Your task to perform on an android device: turn off notifications settings in the gmail app Image 0: 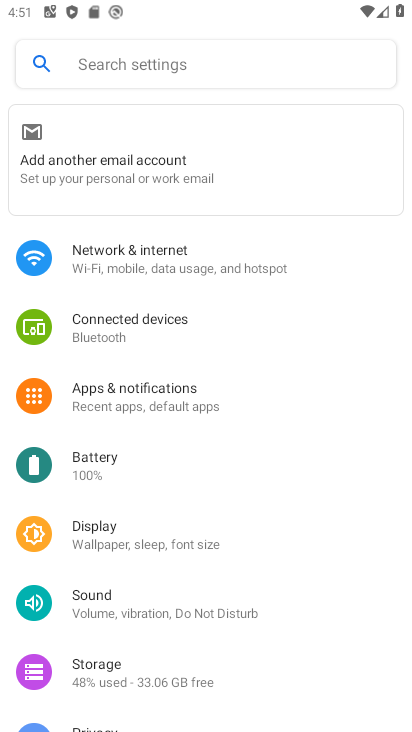
Step 0: press home button
Your task to perform on an android device: turn off notifications settings in the gmail app Image 1: 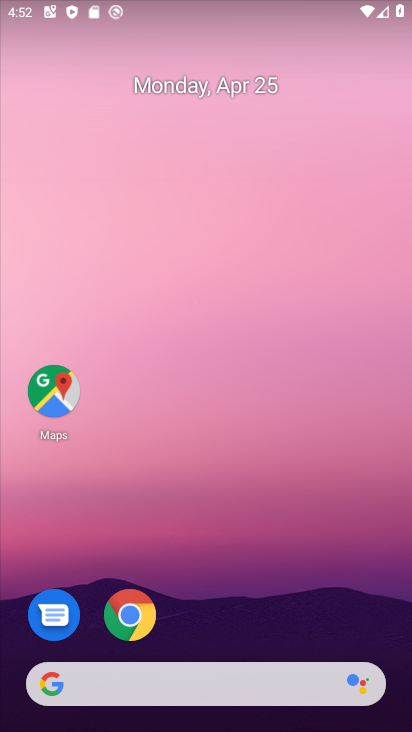
Step 1: drag from (378, 397) to (348, 57)
Your task to perform on an android device: turn off notifications settings in the gmail app Image 2: 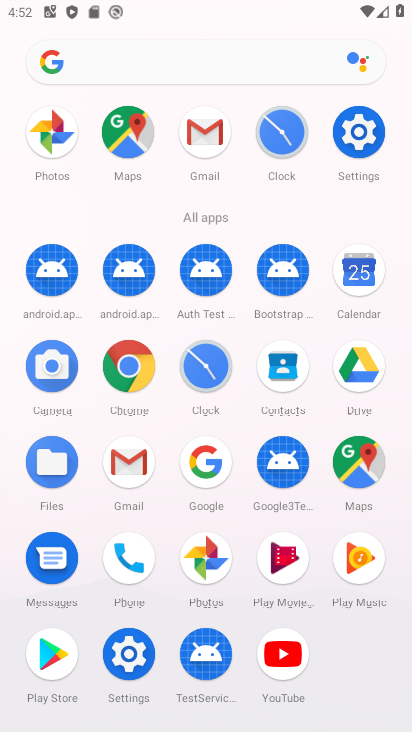
Step 2: click (207, 149)
Your task to perform on an android device: turn off notifications settings in the gmail app Image 3: 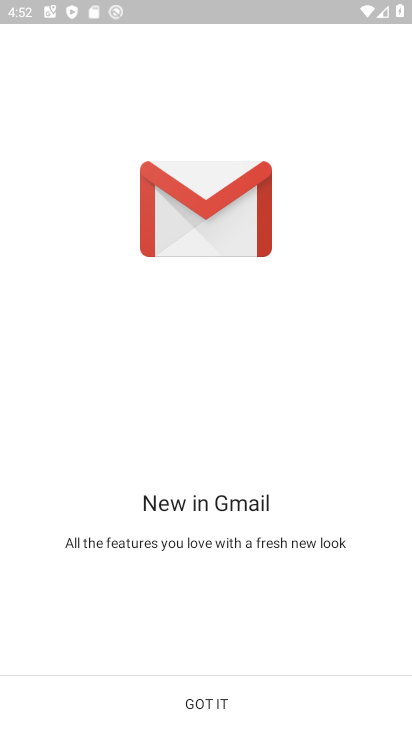
Step 3: click (213, 696)
Your task to perform on an android device: turn off notifications settings in the gmail app Image 4: 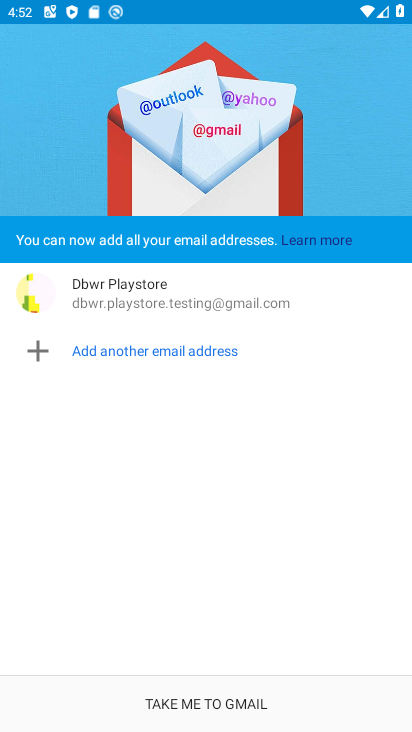
Step 4: click (234, 696)
Your task to perform on an android device: turn off notifications settings in the gmail app Image 5: 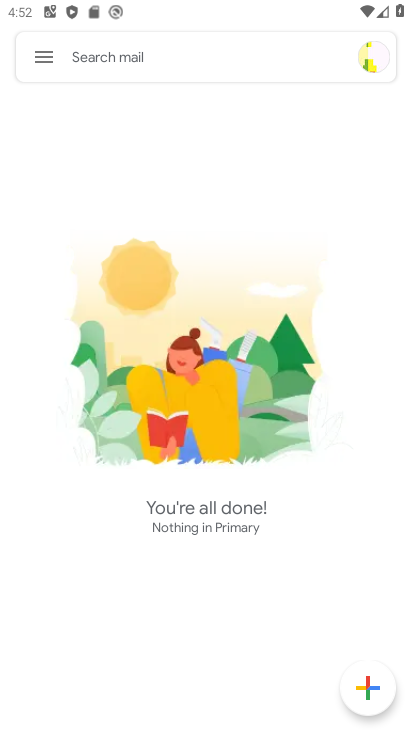
Step 5: click (44, 52)
Your task to perform on an android device: turn off notifications settings in the gmail app Image 6: 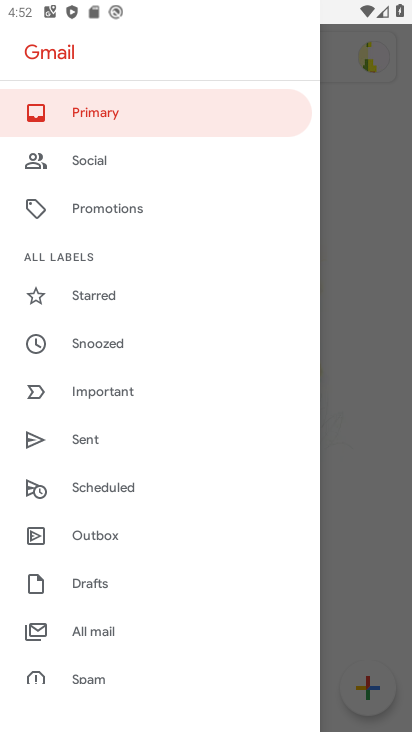
Step 6: drag from (164, 466) to (209, 108)
Your task to perform on an android device: turn off notifications settings in the gmail app Image 7: 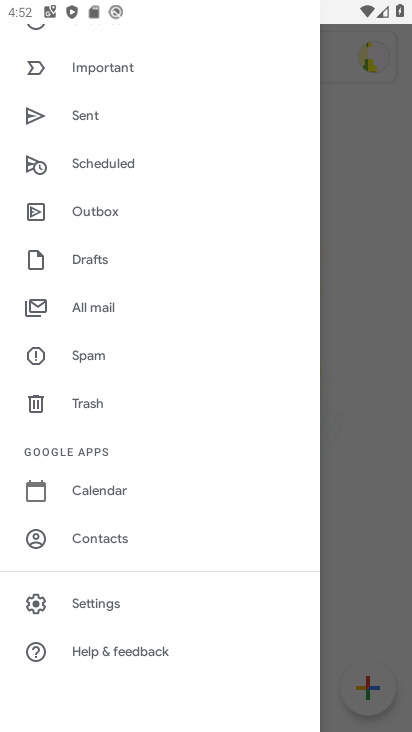
Step 7: click (136, 603)
Your task to perform on an android device: turn off notifications settings in the gmail app Image 8: 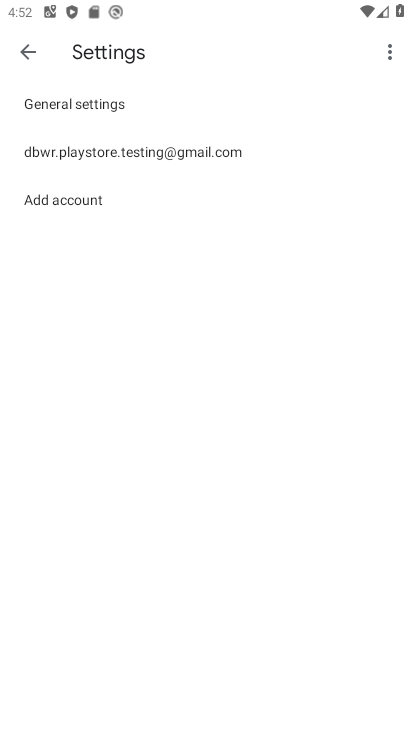
Step 8: click (111, 149)
Your task to perform on an android device: turn off notifications settings in the gmail app Image 9: 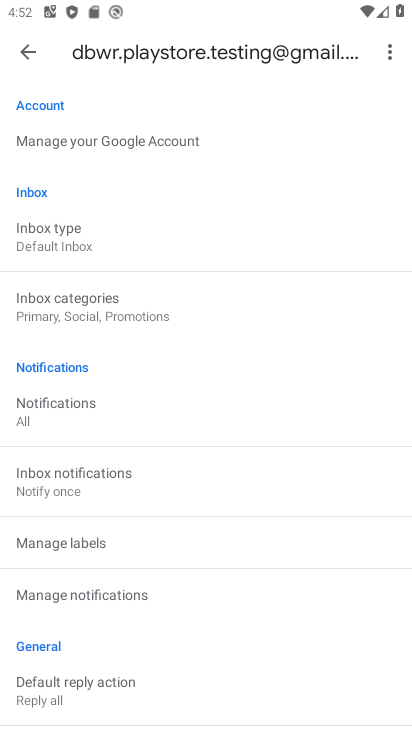
Step 9: click (74, 408)
Your task to perform on an android device: turn off notifications settings in the gmail app Image 10: 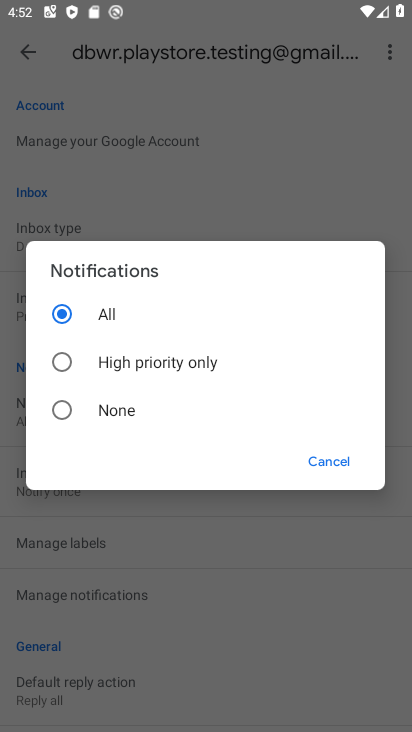
Step 10: click (57, 367)
Your task to perform on an android device: turn off notifications settings in the gmail app Image 11: 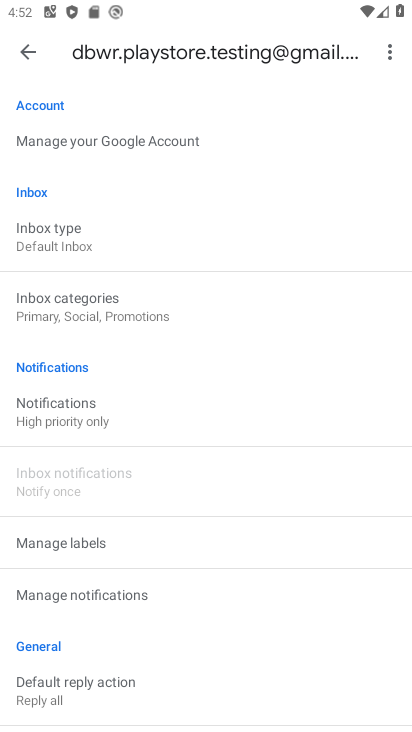
Step 11: task complete